Your task to perform on an android device: Open calendar and show me the second week of next month Image 0: 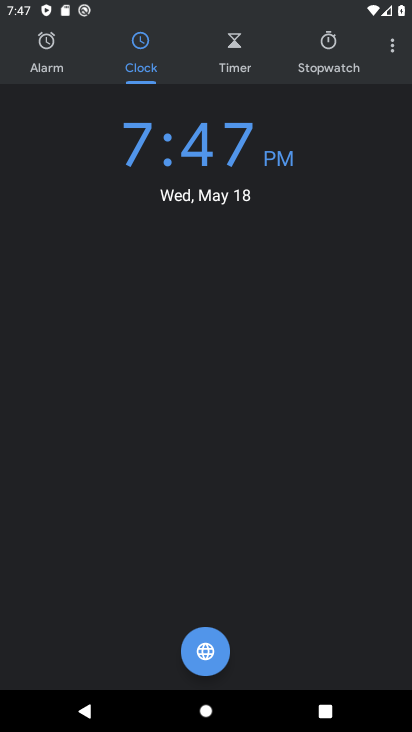
Step 0: press back button
Your task to perform on an android device: Open calendar and show me the second week of next month Image 1: 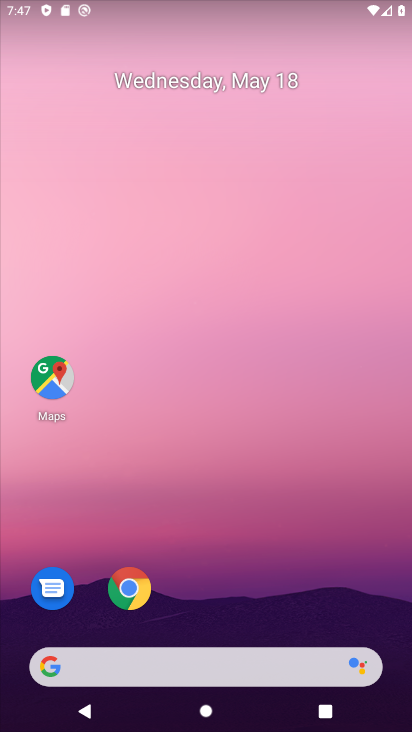
Step 1: drag from (253, 581) to (194, 17)
Your task to perform on an android device: Open calendar and show me the second week of next month Image 2: 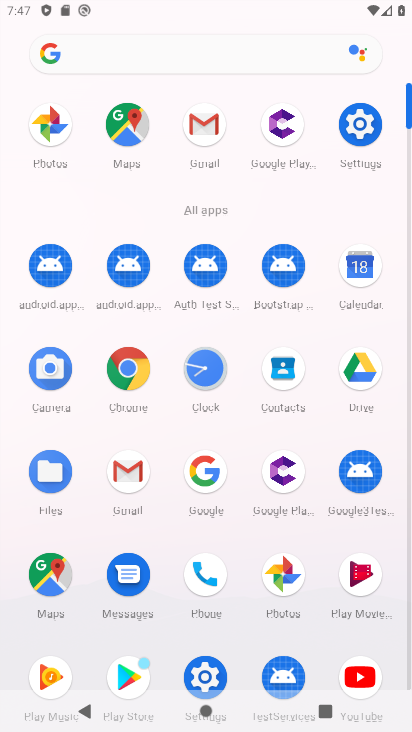
Step 2: drag from (11, 489) to (5, 201)
Your task to perform on an android device: Open calendar and show me the second week of next month Image 3: 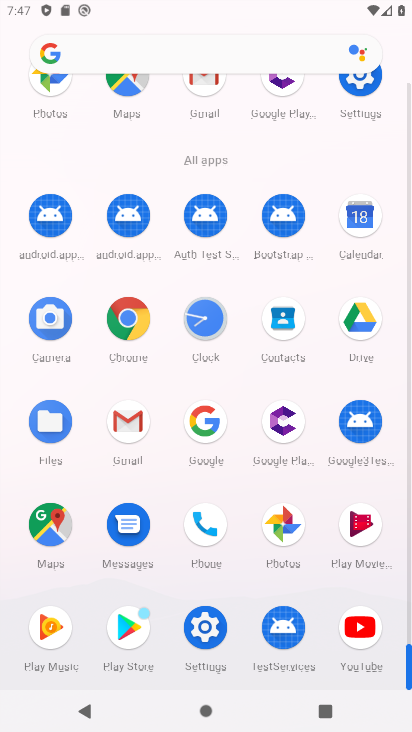
Step 3: click (362, 218)
Your task to perform on an android device: Open calendar and show me the second week of next month Image 4: 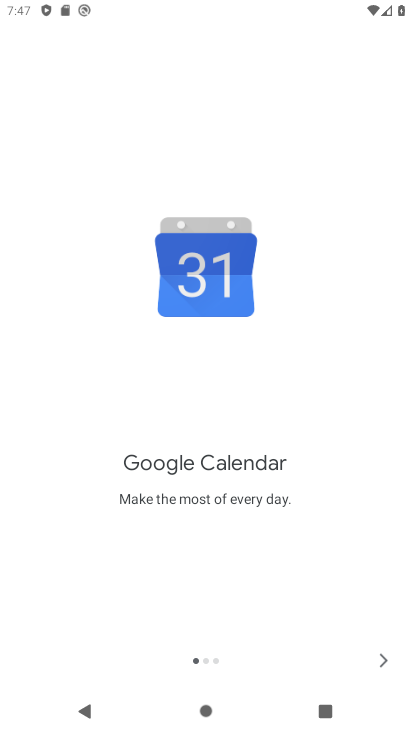
Step 4: click (376, 659)
Your task to perform on an android device: Open calendar and show me the second week of next month Image 5: 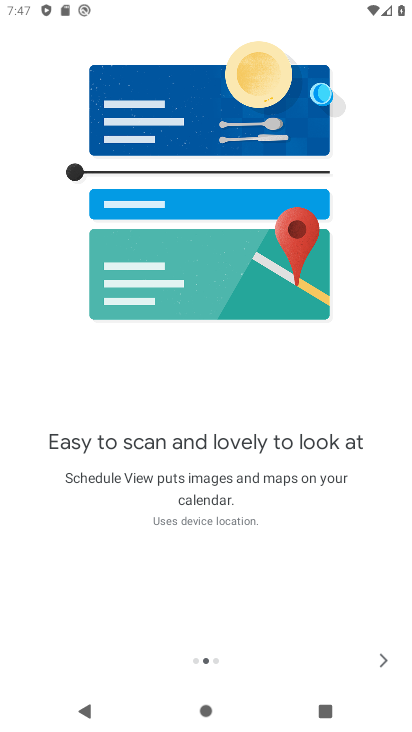
Step 5: click (376, 659)
Your task to perform on an android device: Open calendar and show me the second week of next month Image 6: 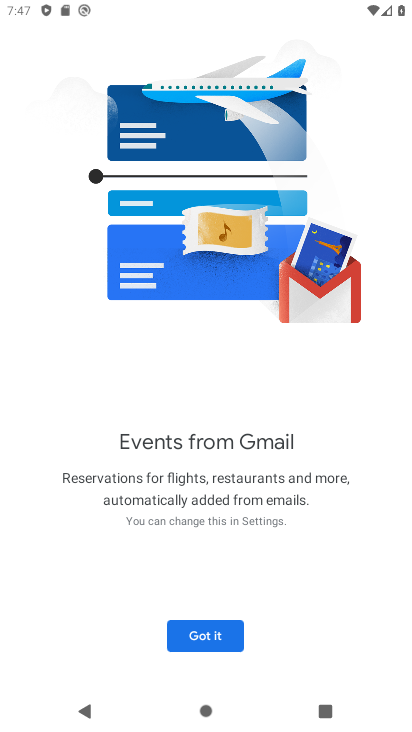
Step 6: click (232, 631)
Your task to perform on an android device: Open calendar and show me the second week of next month Image 7: 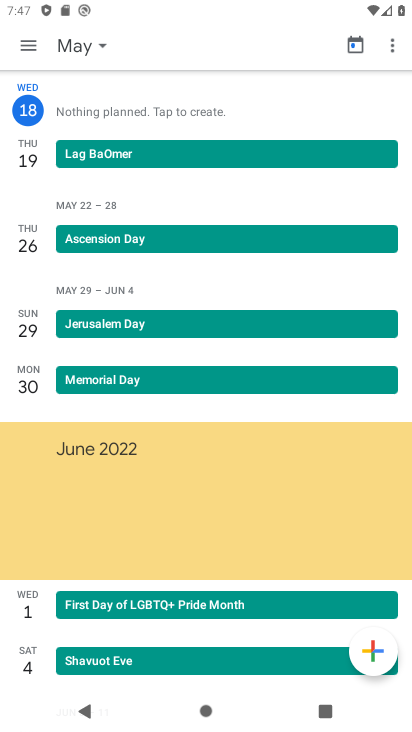
Step 7: click (85, 51)
Your task to perform on an android device: Open calendar and show me the second week of next month Image 8: 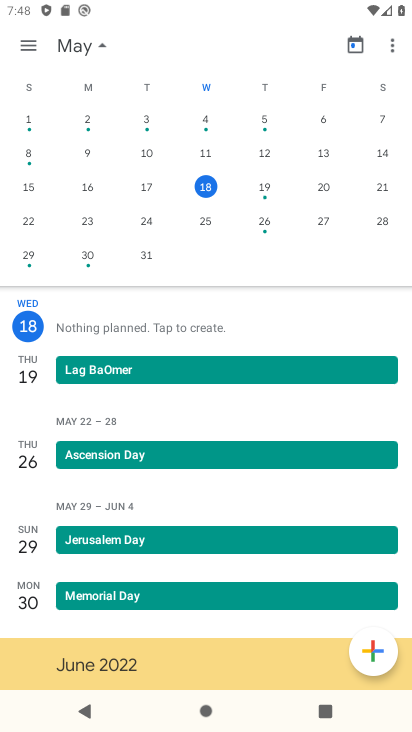
Step 8: drag from (377, 224) to (3, 142)
Your task to perform on an android device: Open calendar and show me the second week of next month Image 9: 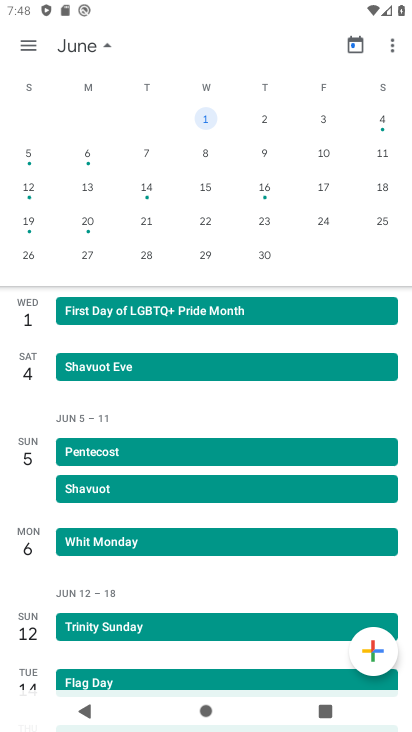
Step 9: click (25, 154)
Your task to perform on an android device: Open calendar and show me the second week of next month Image 10: 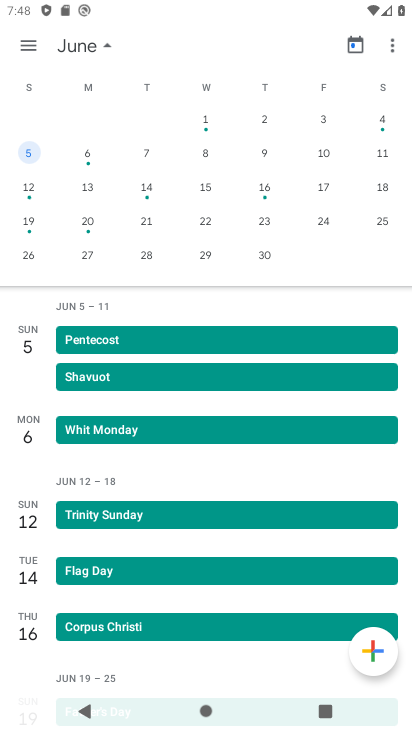
Step 10: click (23, 35)
Your task to perform on an android device: Open calendar and show me the second week of next month Image 11: 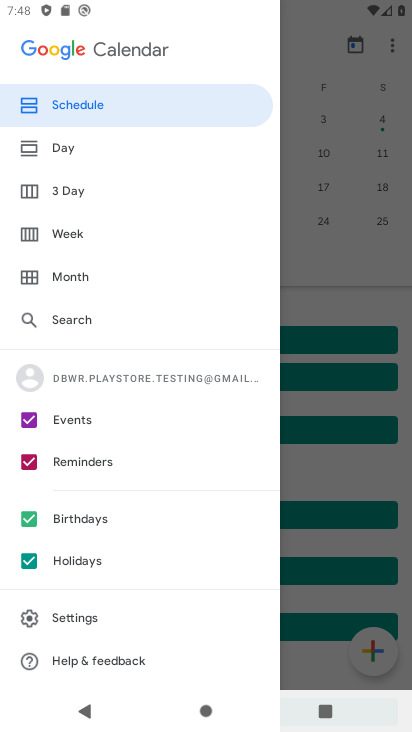
Step 11: click (79, 232)
Your task to perform on an android device: Open calendar and show me the second week of next month Image 12: 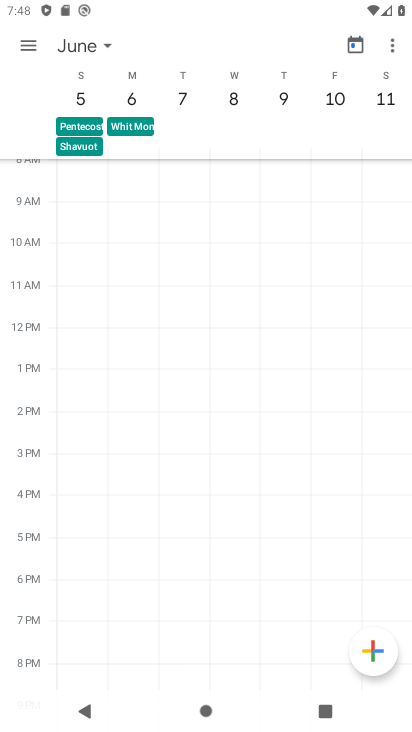
Step 12: task complete